Your task to perform on an android device: Open calendar and show me the first week of next month Image 0: 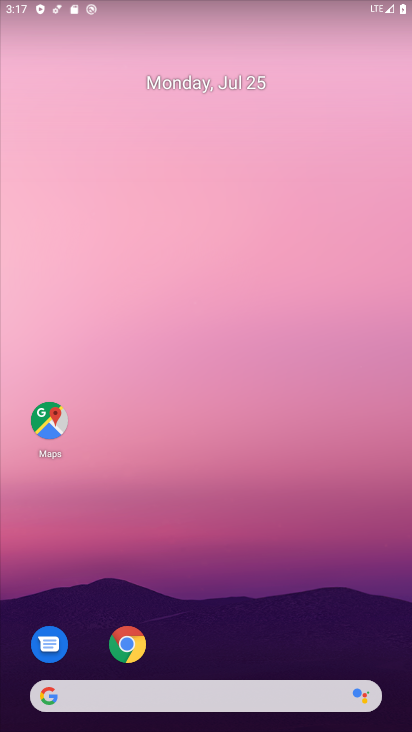
Step 0: drag from (311, 645) to (237, 231)
Your task to perform on an android device: Open calendar and show me the first week of next month Image 1: 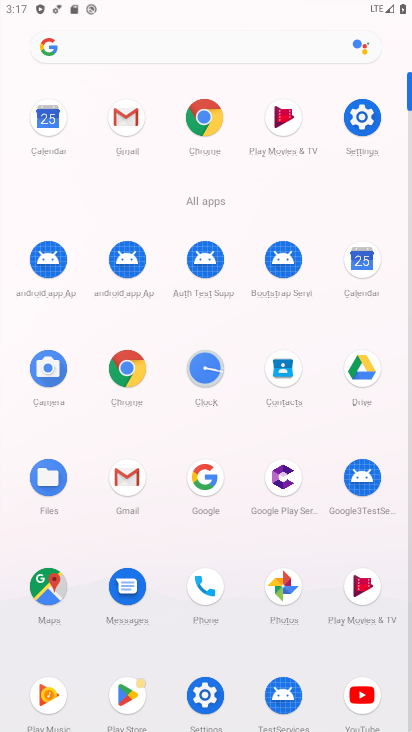
Step 1: click (369, 261)
Your task to perform on an android device: Open calendar and show me the first week of next month Image 2: 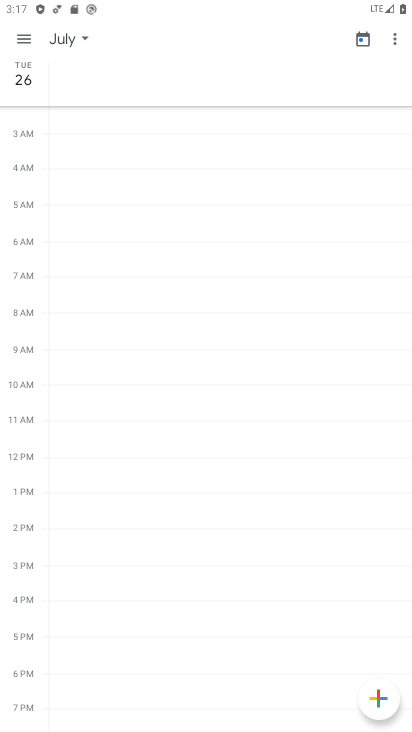
Step 2: click (24, 44)
Your task to perform on an android device: Open calendar and show me the first week of next month Image 3: 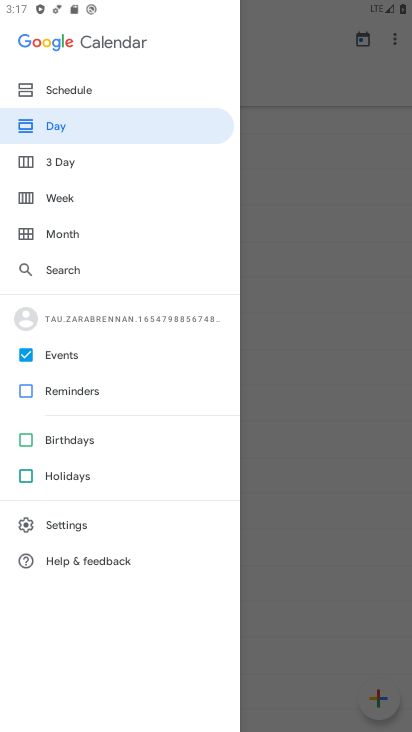
Step 3: click (74, 193)
Your task to perform on an android device: Open calendar and show me the first week of next month Image 4: 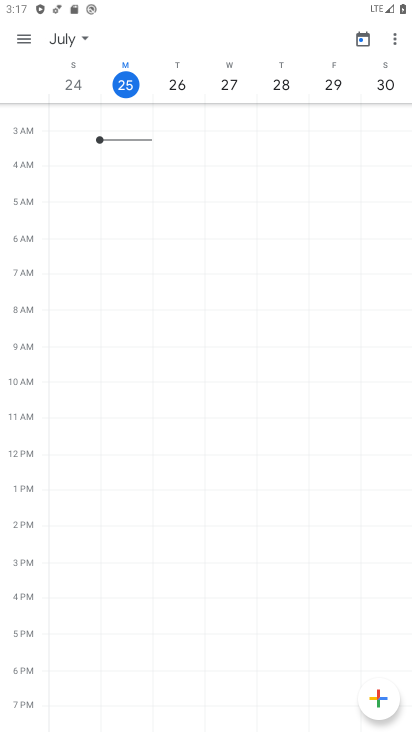
Step 4: click (76, 36)
Your task to perform on an android device: Open calendar and show me the first week of next month Image 5: 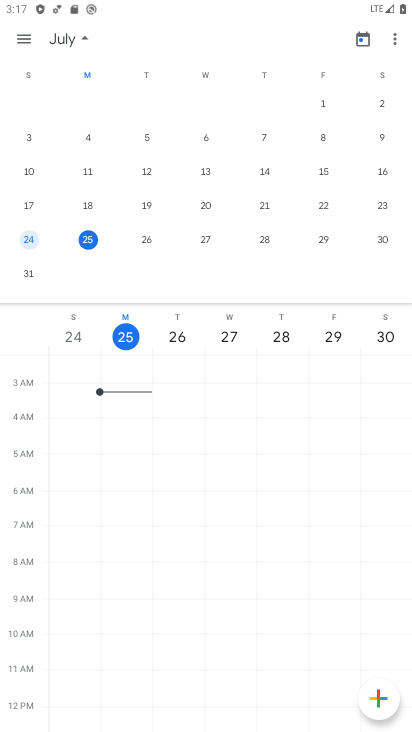
Step 5: drag from (371, 184) to (102, 192)
Your task to perform on an android device: Open calendar and show me the first week of next month Image 6: 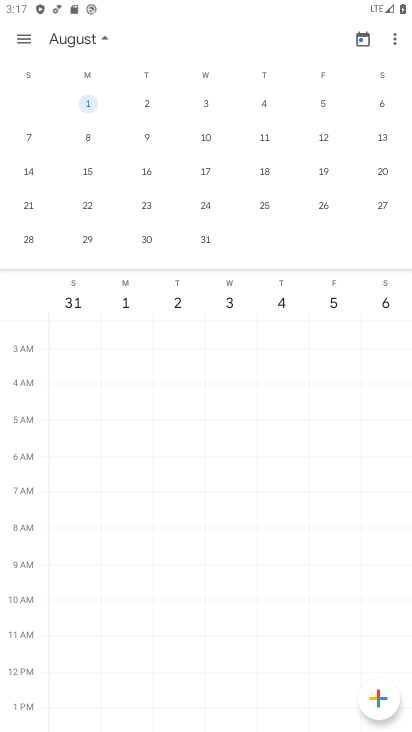
Step 6: click (267, 106)
Your task to perform on an android device: Open calendar and show me the first week of next month Image 7: 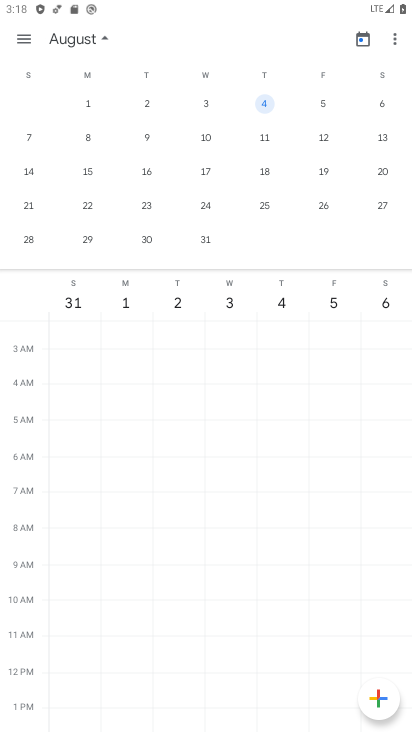
Step 7: task complete